Your task to perform on an android device: Open display settings Image 0: 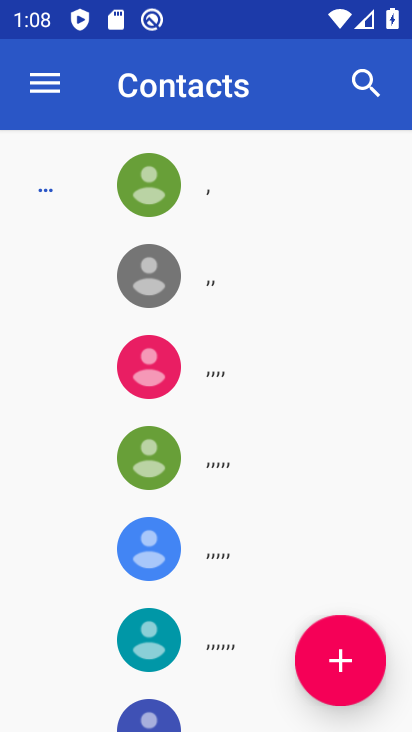
Step 0: press home button
Your task to perform on an android device: Open display settings Image 1: 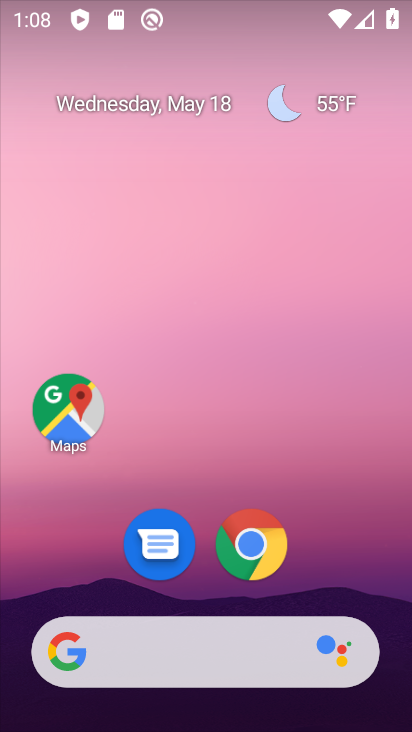
Step 1: drag from (315, 561) to (241, 242)
Your task to perform on an android device: Open display settings Image 2: 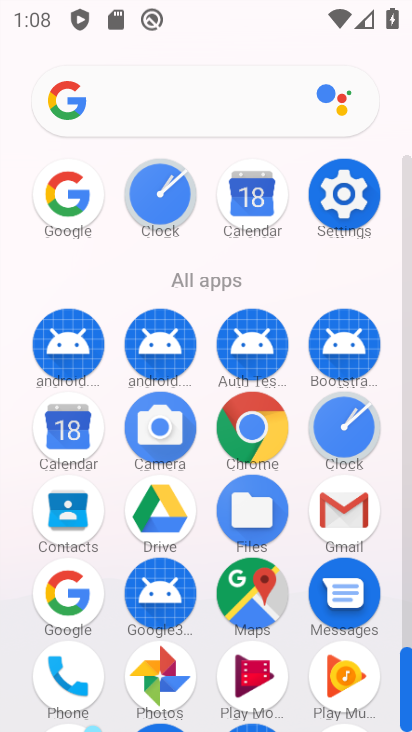
Step 2: click (329, 186)
Your task to perform on an android device: Open display settings Image 3: 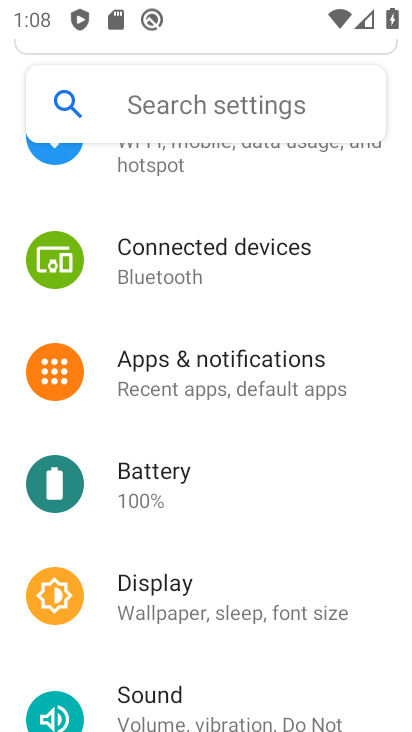
Step 3: click (182, 596)
Your task to perform on an android device: Open display settings Image 4: 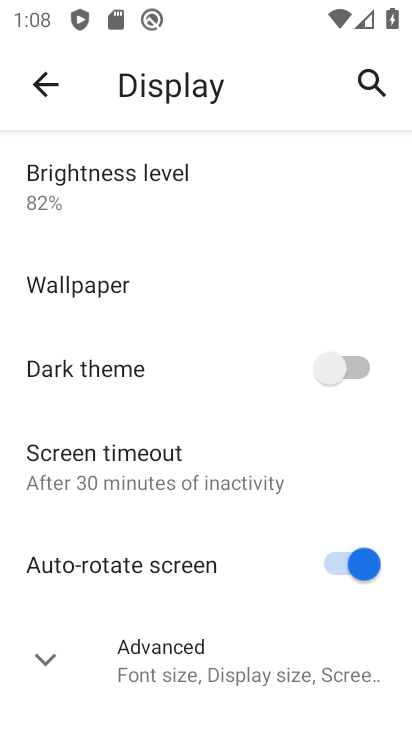
Step 4: task complete